Your task to perform on an android device: Open Reddit.com Image 0: 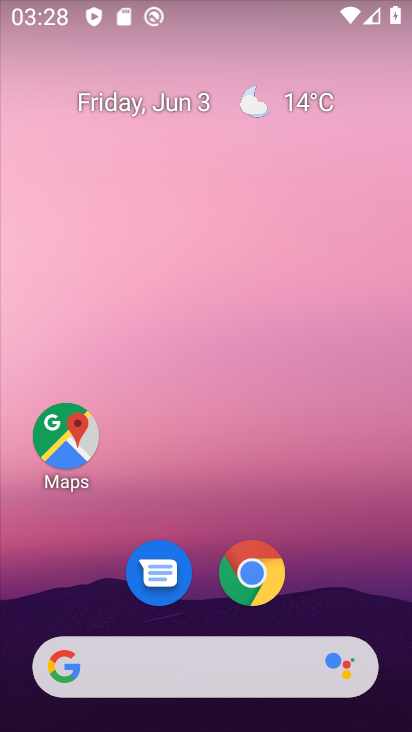
Step 0: drag from (298, 635) to (291, 19)
Your task to perform on an android device: Open Reddit.com Image 1: 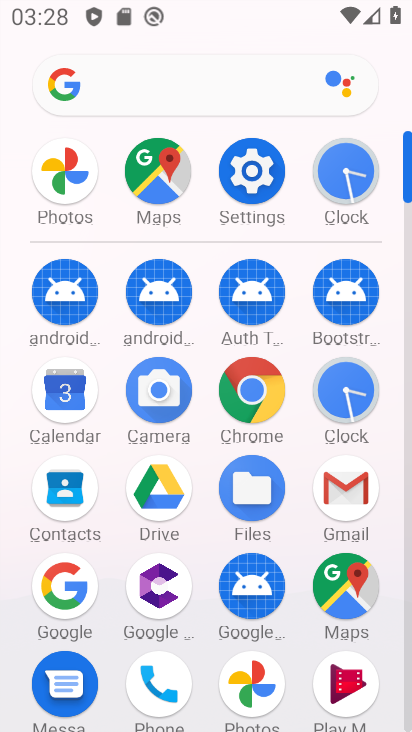
Step 1: click (260, 381)
Your task to perform on an android device: Open Reddit.com Image 2: 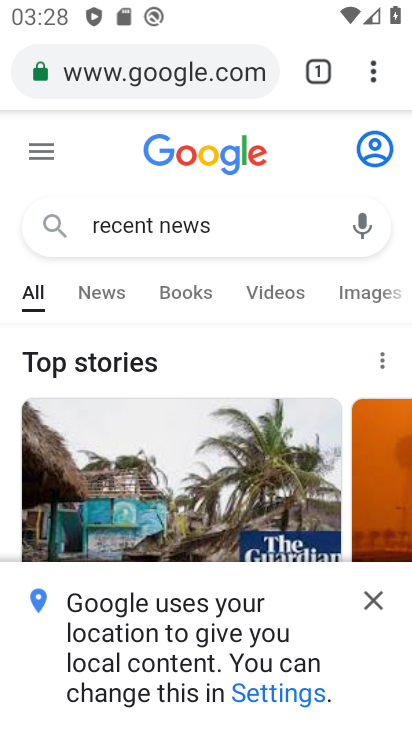
Step 2: drag from (363, 66) to (274, 139)
Your task to perform on an android device: Open Reddit.com Image 3: 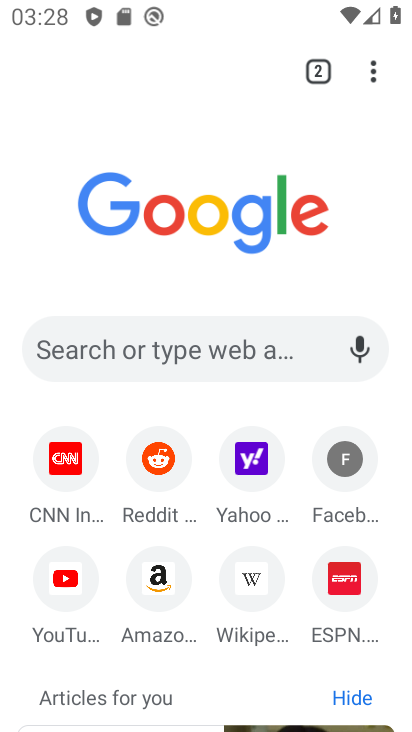
Step 3: click (166, 475)
Your task to perform on an android device: Open Reddit.com Image 4: 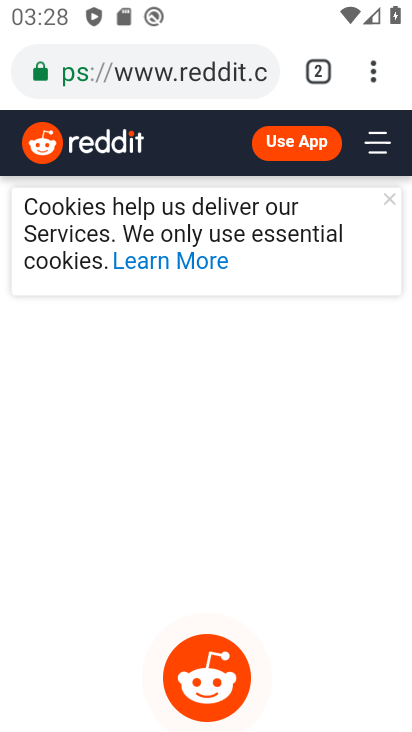
Step 4: task complete